Your task to perform on an android device: Open Amazon Image 0: 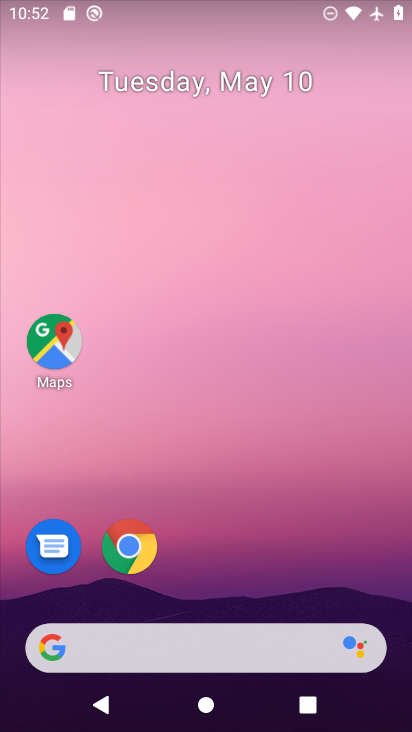
Step 0: drag from (287, 574) to (305, 169)
Your task to perform on an android device: Open Amazon Image 1: 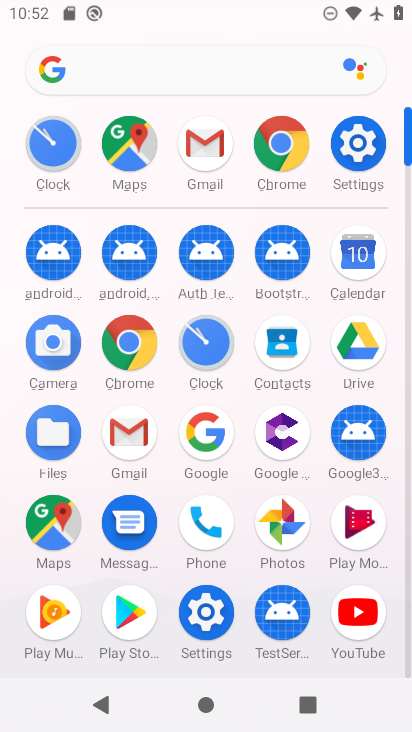
Step 1: click (282, 150)
Your task to perform on an android device: Open Amazon Image 2: 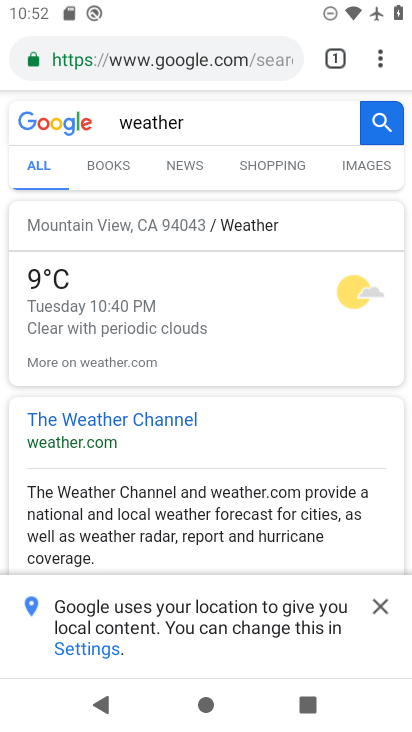
Step 2: click (253, 64)
Your task to perform on an android device: Open Amazon Image 3: 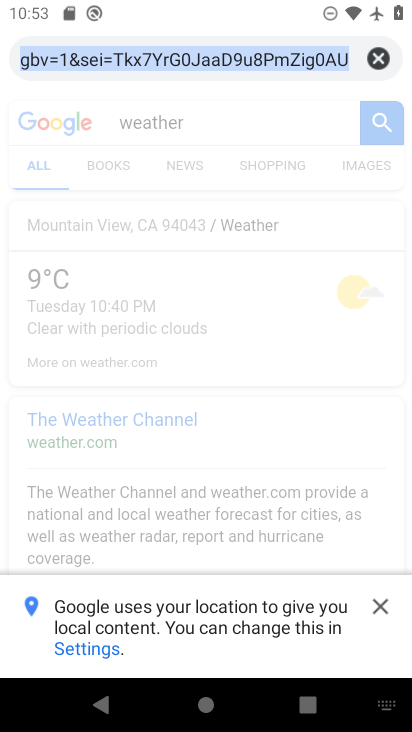
Step 3: type "amazon"
Your task to perform on an android device: Open Amazon Image 4: 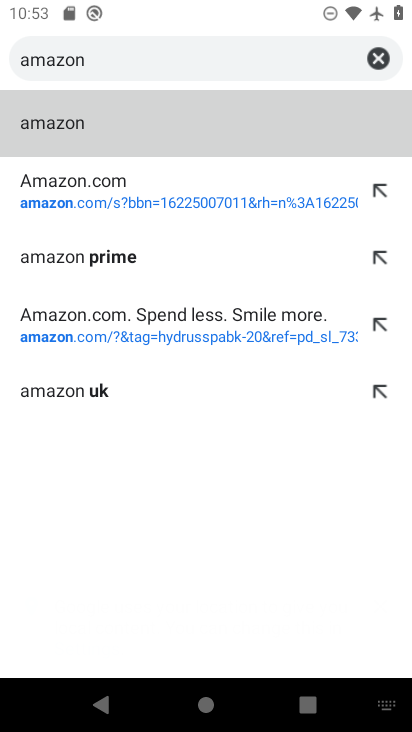
Step 4: click (54, 116)
Your task to perform on an android device: Open Amazon Image 5: 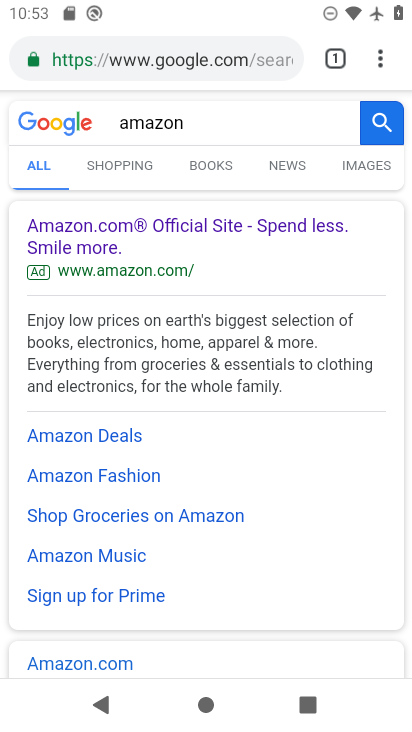
Step 5: click (117, 227)
Your task to perform on an android device: Open Amazon Image 6: 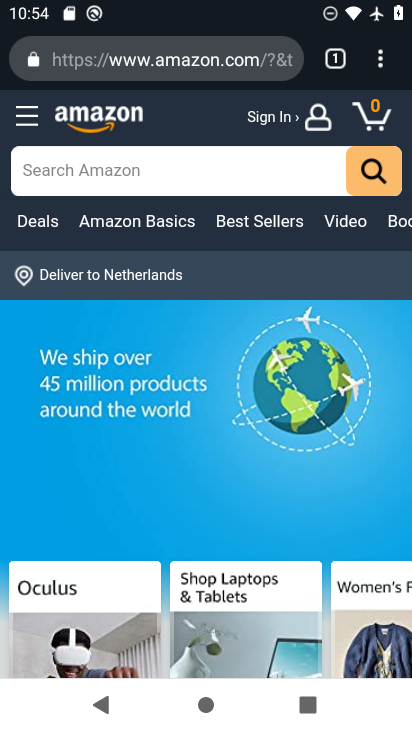
Step 6: task complete